Your task to perform on an android device: turn on priority inbox in the gmail app Image 0: 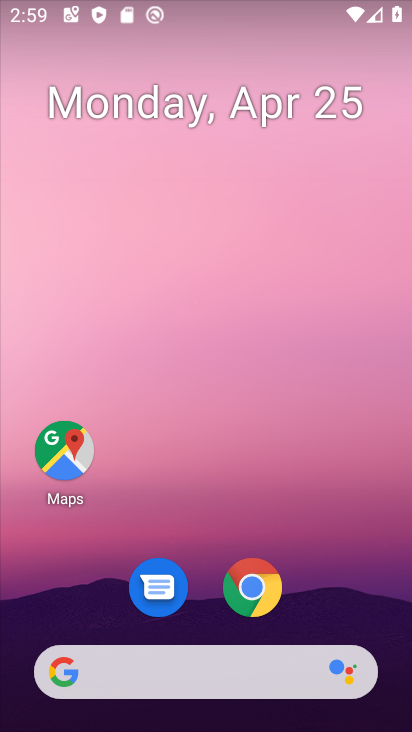
Step 0: drag from (200, 569) to (189, 207)
Your task to perform on an android device: turn on priority inbox in the gmail app Image 1: 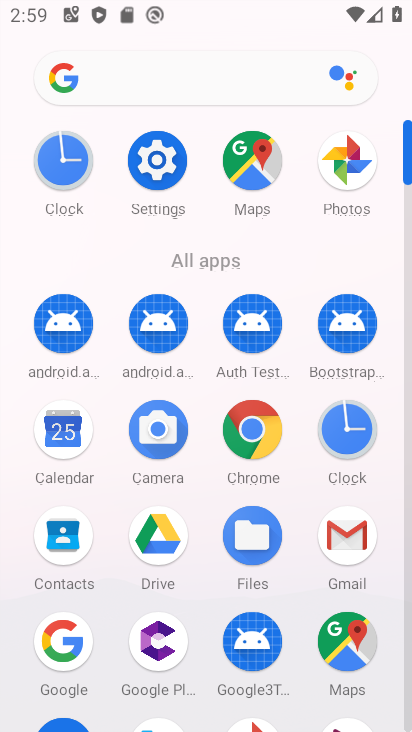
Step 1: click (354, 530)
Your task to perform on an android device: turn on priority inbox in the gmail app Image 2: 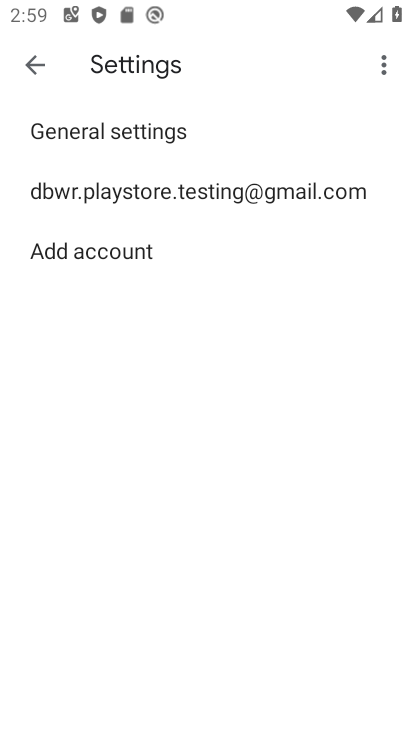
Step 2: press back button
Your task to perform on an android device: turn on priority inbox in the gmail app Image 3: 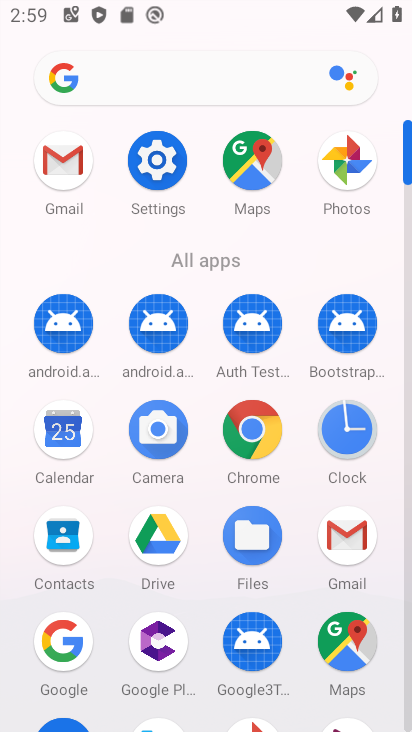
Step 3: click (54, 165)
Your task to perform on an android device: turn on priority inbox in the gmail app Image 4: 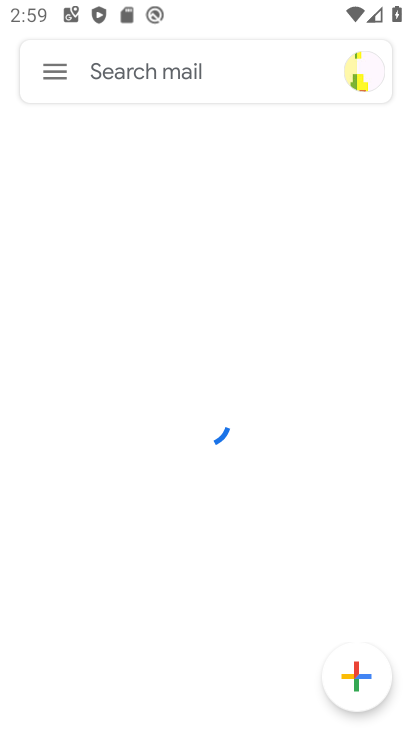
Step 4: click (53, 69)
Your task to perform on an android device: turn on priority inbox in the gmail app Image 5: 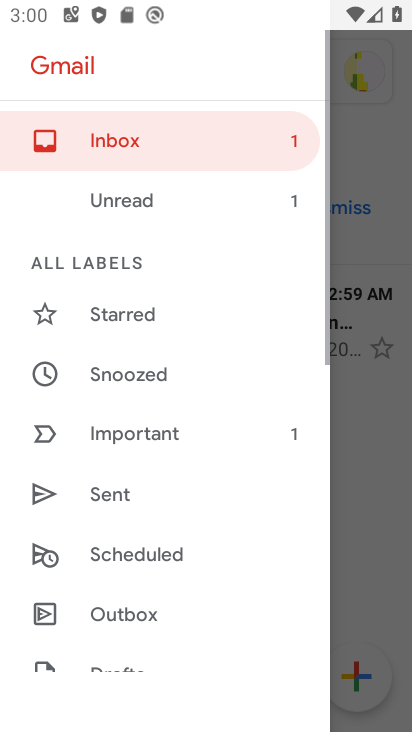
Step 5: drag from (180, 615) to (205, 223)
Your task to perform on an android device: turn on priority inbox in the gmail app Image 6: 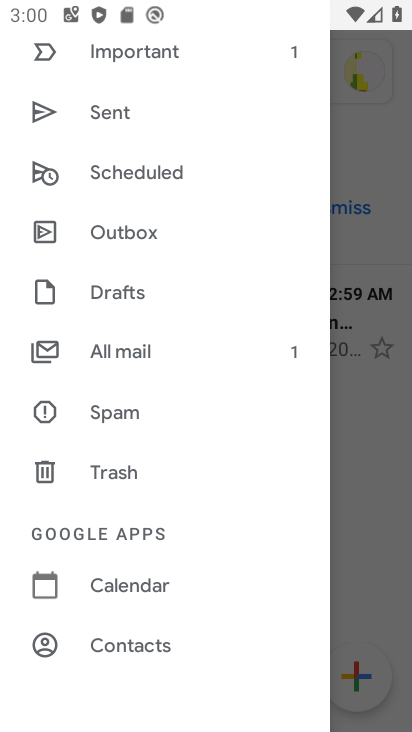
Step 6: drag from (164, 632) to (186, 295)
Your task to perform on an android device: turn on priority inbox in the gmail app Image 7: 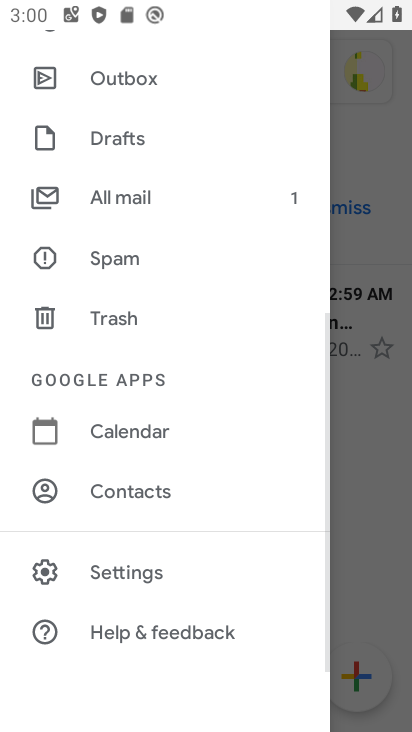
Step 7: click (91, 572)
Your task to perform on an android device: turn on priority inbox in the gmail app Image 8: 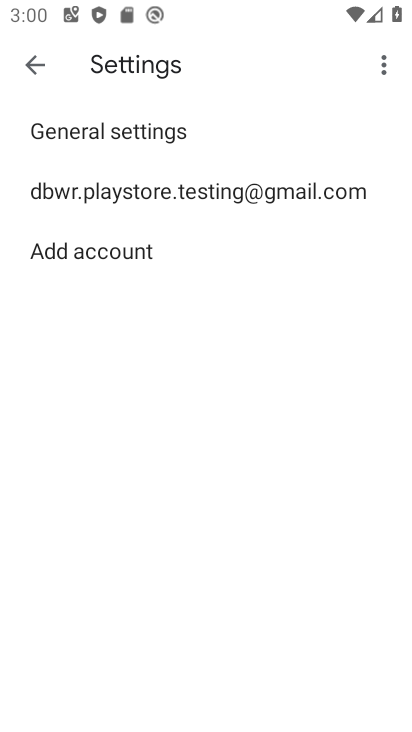
Step 8: click (101, 189)
Your task to perform on an android device: turn on priority inbox in the gmail app Image 9: 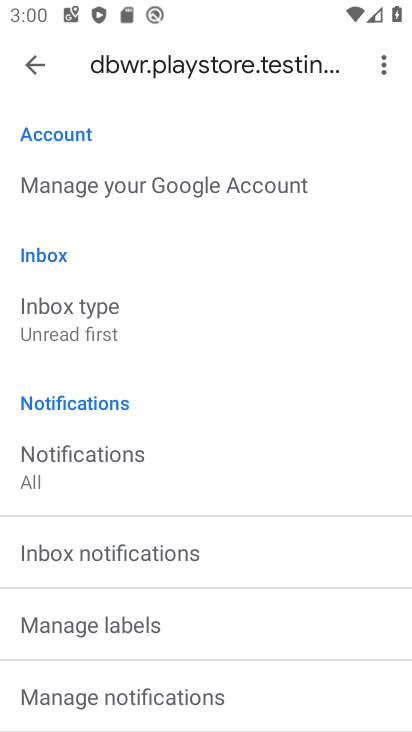
Step 9: drag from (192, 509) to (273, 454)
Your task to perform on an android device: turn on priority inbox in the gmail app Image 10: 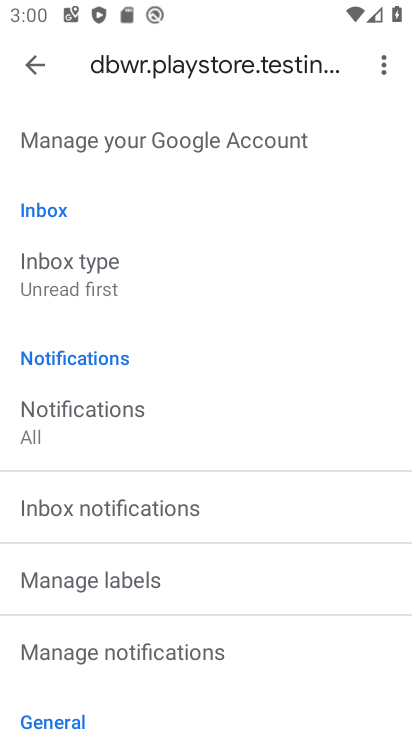
Step 10: drag from (145, 301) to (165, 432)
Your task to perform on an android device: turn on priority inbox in the gmail app Image 11: 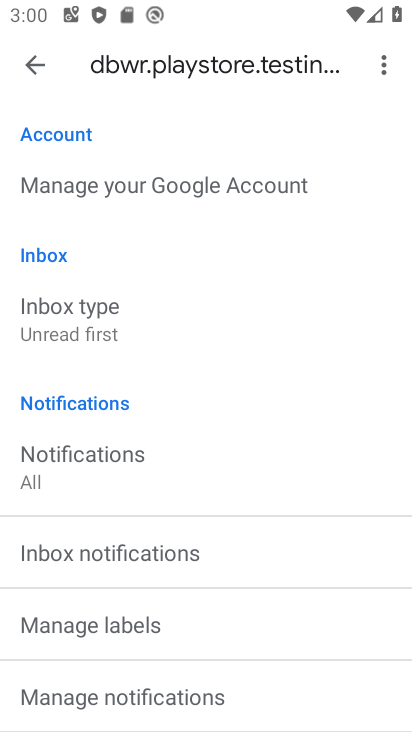
Step 11: click (104, 323)
Your task to perform on an android device: turn on priority inbox in the gmail app Image 12: 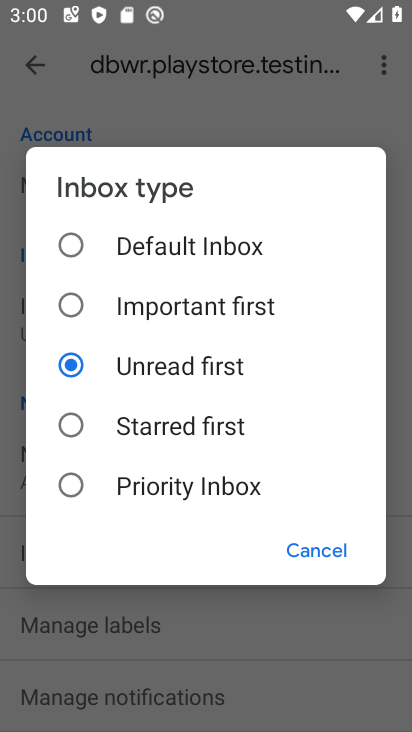
Step 12: click (73, 474)
Your task to perform on an android device: turn on priority inbox in the gmail app Image 13: 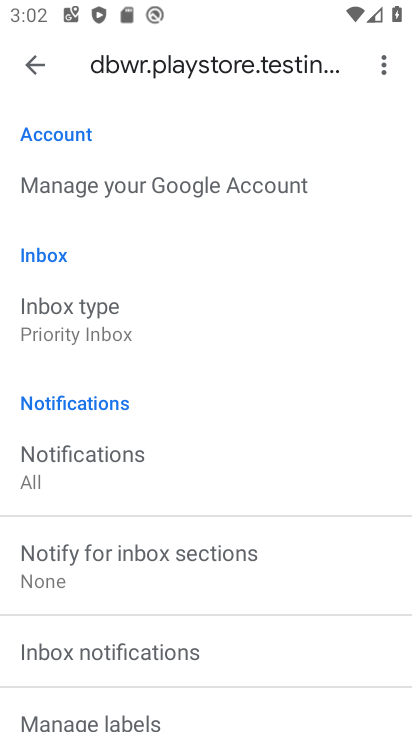
Step 13: task complete